Your task to perform on an android device: Go to display settings Image 0: 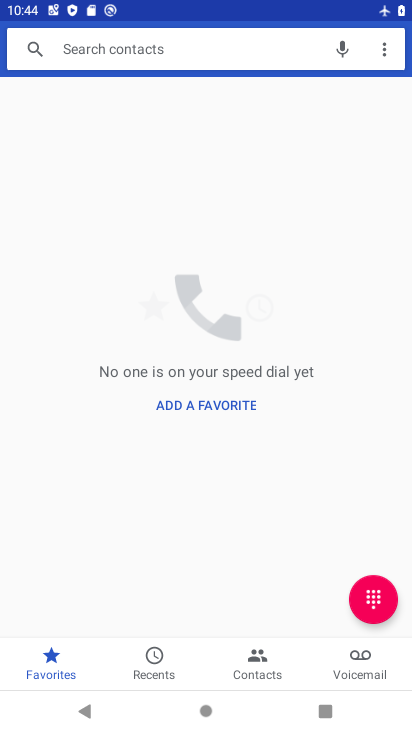
Step 0: press home button
Your task to perform on an android device: Go to display settings Image 1: 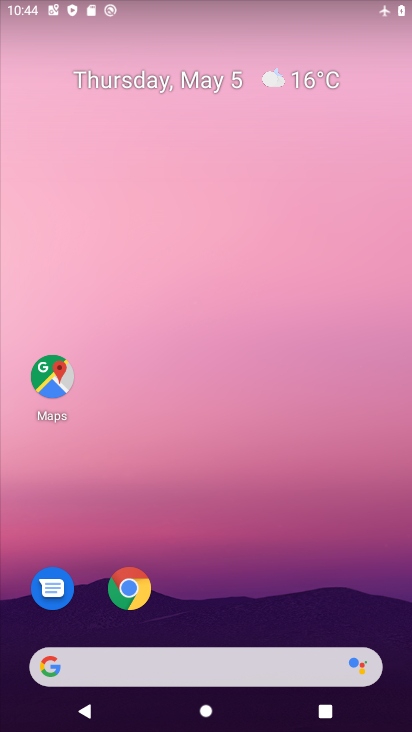
Step 1: drag from (255, 606) to (183, 190)
Your task to perform on an android device: Go to display settings Image 2: 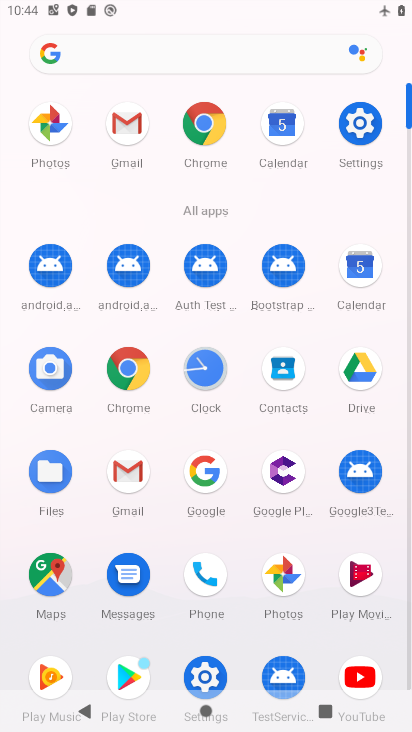
Step 2: click (360, 111)
Your task to perform on an android device: Go to display settings Image 3: 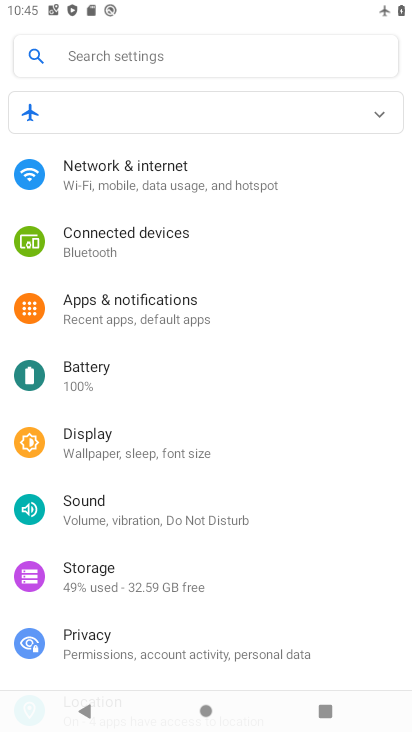
Step 3: click (200, 450)
Your task to perform on an android device: Go to display settings Image 4: 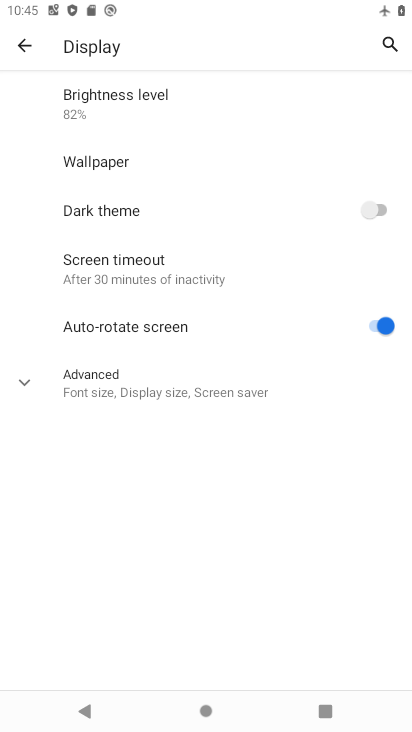
Step 4: click (183, 382)
Your task to perform on an android device: Go to display settings Image 5: 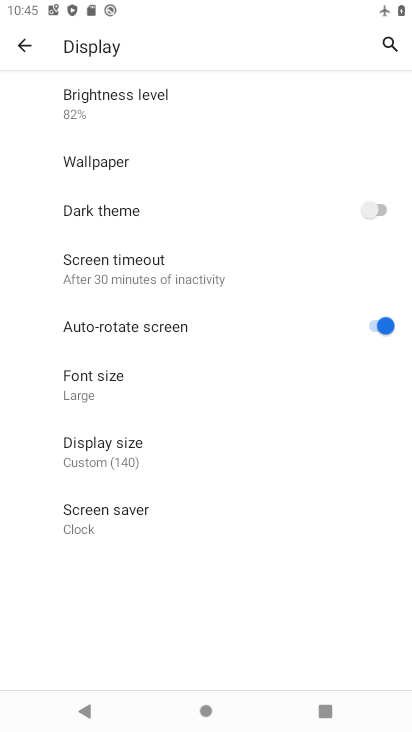
Step 5: task complete